Your task to perform on an android device: Open display settings Image 0: 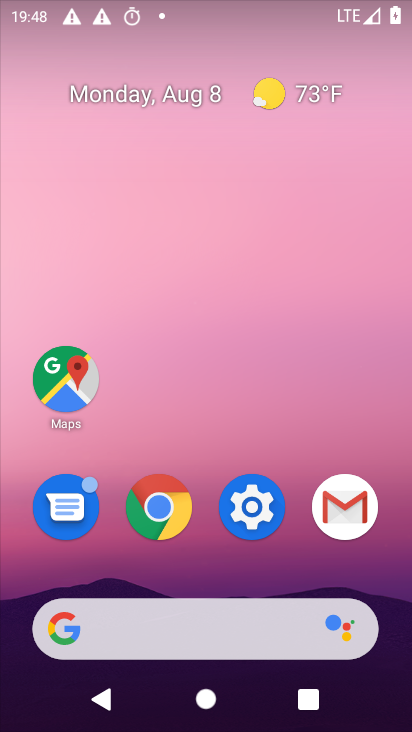
Step 0: drag from (247, 644) to (213, 131)
Your task to perform on an android device: Open display settings Image 1: 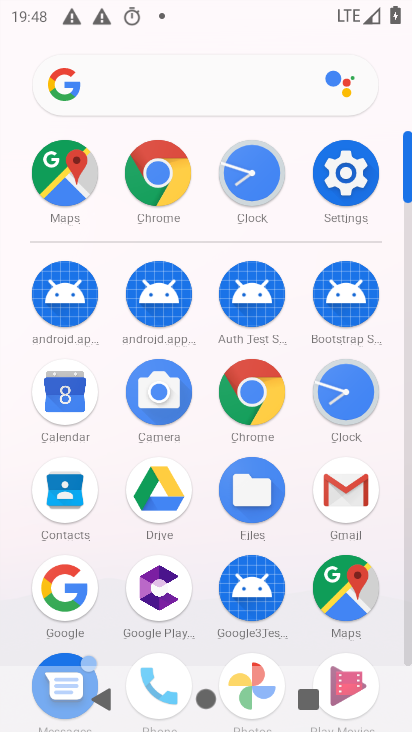
Step 1: click (343, 181)
Your task to perform on an android device: Open display settings Image 2: 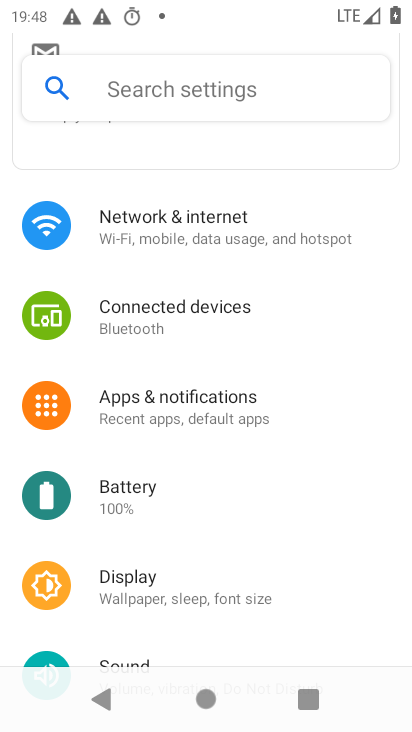
Step 2: click (164, 603)
Your task to perform on an android device: Open display settings Image 3: 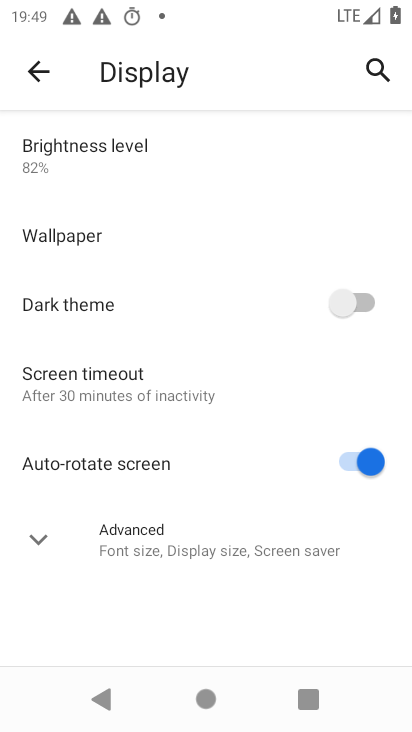
Step 3: task complete